Your task to perform on an android device: Show me popular games on the Play Store Image 0: 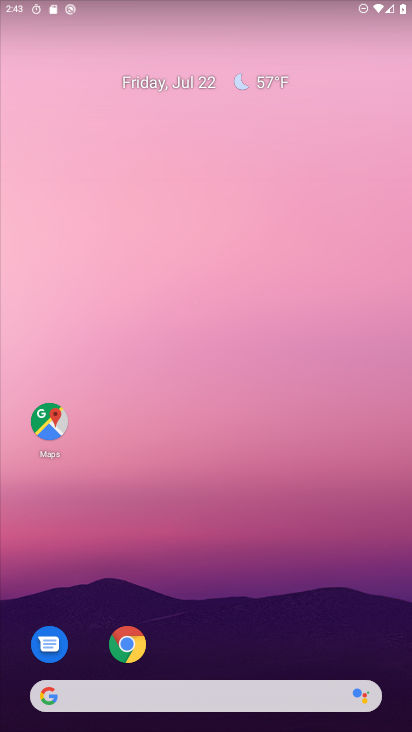
Step 0: drag from (223, 642) to (212, 195)
Your task to perform on an android device: Show me popular games on the Play Store Image 1: 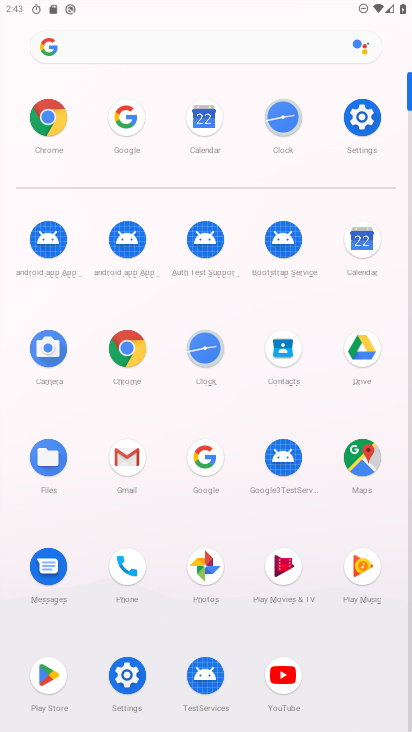
Step 1: click (58, 690)
Your task to perform on an android device: Show me popular games on the Play Store Image 2: 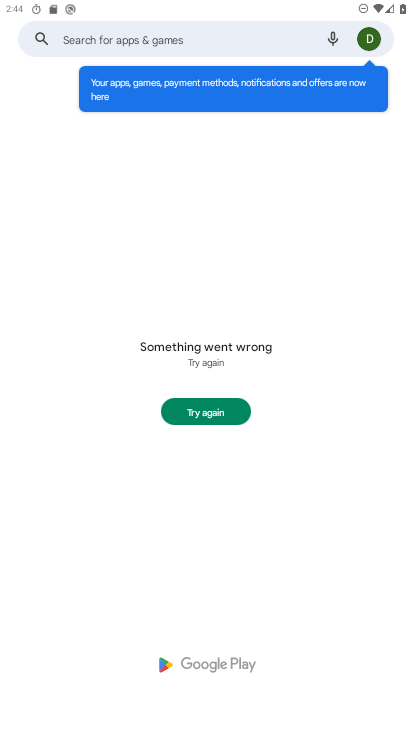
Step 2: press home button
Your task to perform on an android device: Show me popular games on the Play Store Image 3: 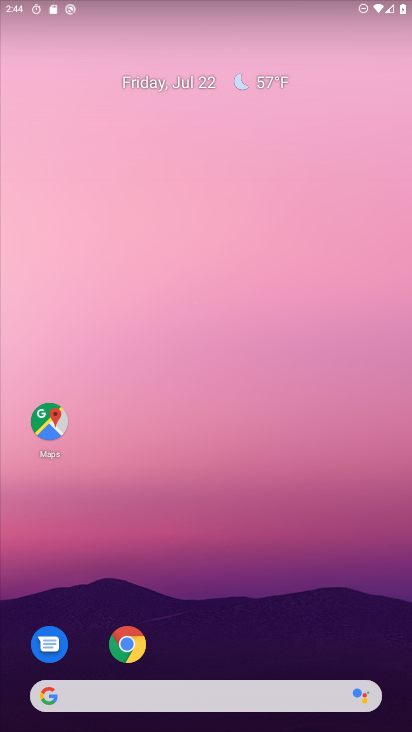
Step 3: drag from (161, 626) to (161, 143)
Your task to perform on an android device: Show me popular games on the Play Store Image 4: 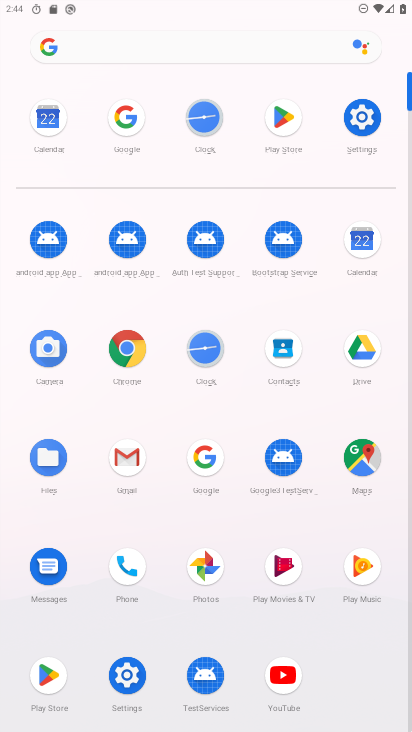
Step 4: click (276, 116)
Your task to perform on an android device: Show me popular games on the Play Store Image 5: 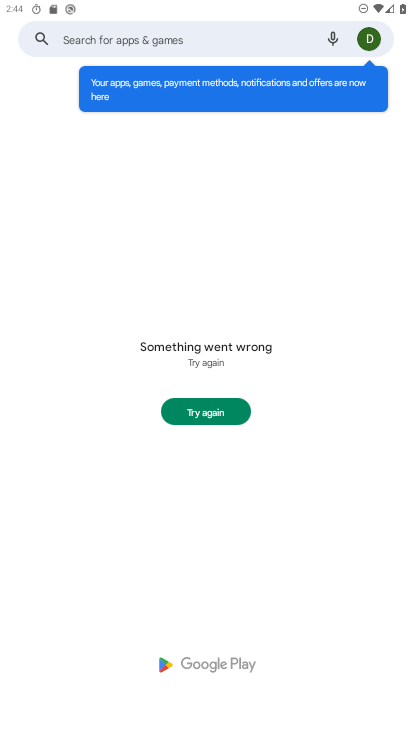
Step 5: click (382, 37)
Your task to perform on an android device: Show me popular games on the Play Store Image 6: 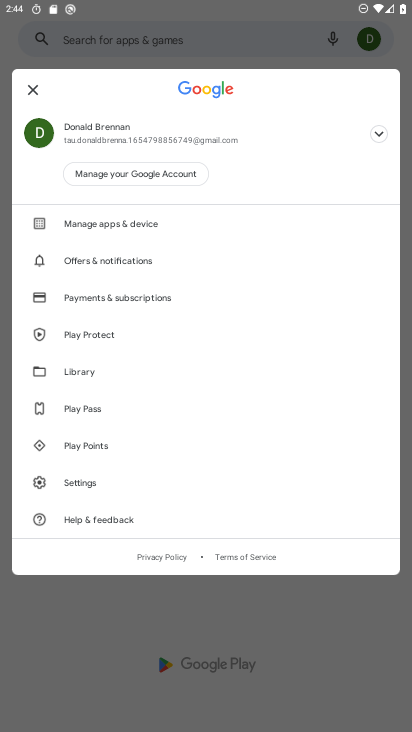
Step 6: click (135, 153)
Your task to perform on an android device: Show me popular games on the Play Store Image 7: 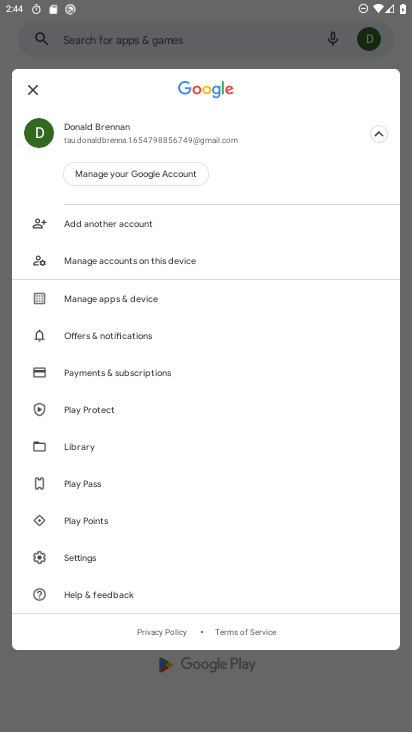
Step 7: click (45, 91)
Your task to perform on an android device: Show me popular games on the Play Store Image 8: 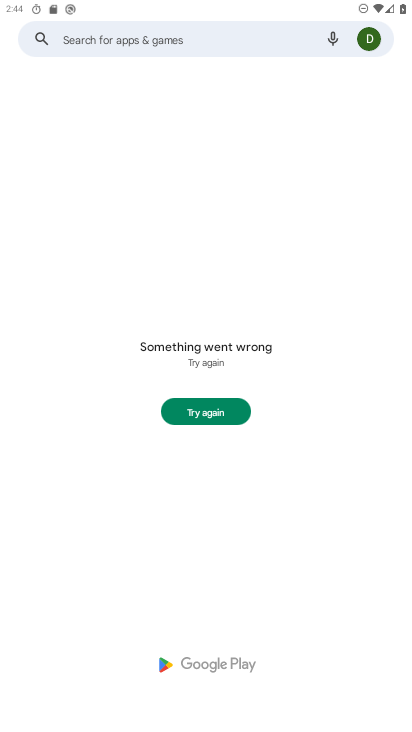
Step 8: task complete